Your task to perform on an android device: Go to sound settings Image 0: 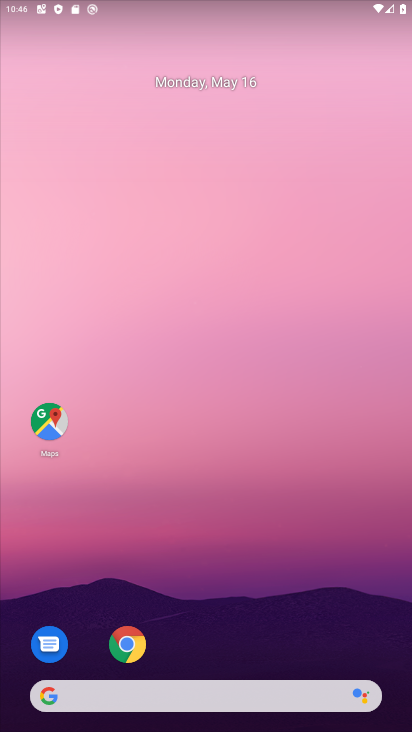
Step 0: drag from (177, 724) to (179, 109)
Your task to perform on an android device: Go to sound settings Image 1: 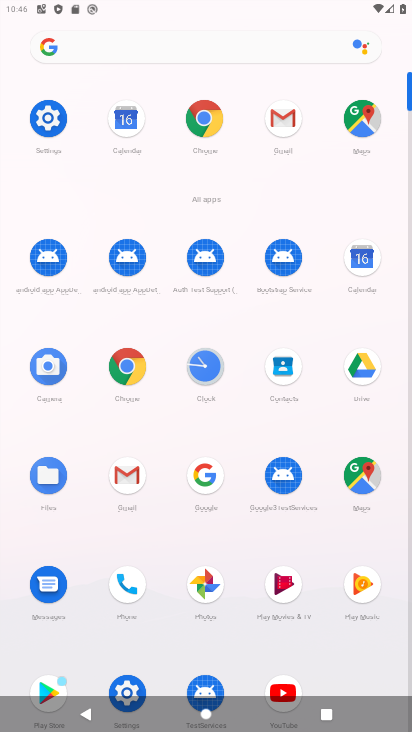
Step 1: click (43, 121)
Your task to perform on an android device: Go to sound settings Image 2: 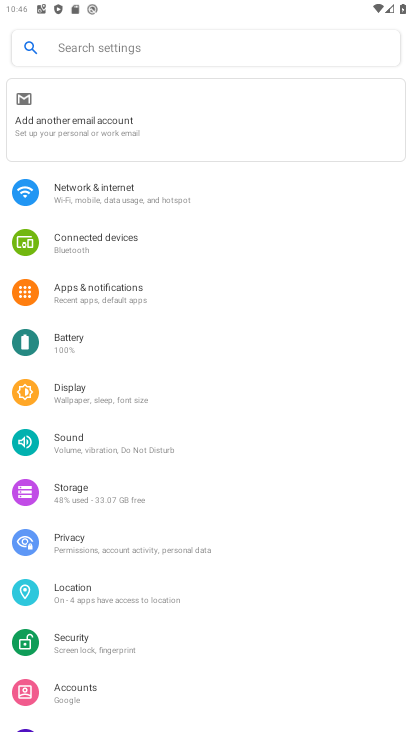
Step 2: click (83, 440)
Your task to perform on an android device: Go to sound settings Image 3: 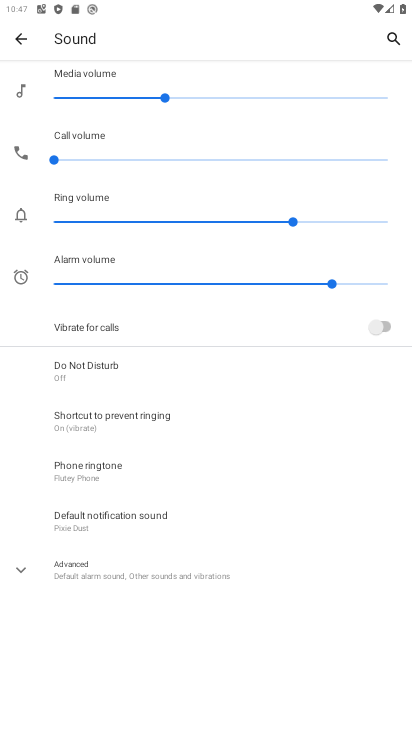
Step 3: task complete